Your task to perform on an android device: toggle data saver in the chrome app Image 0: 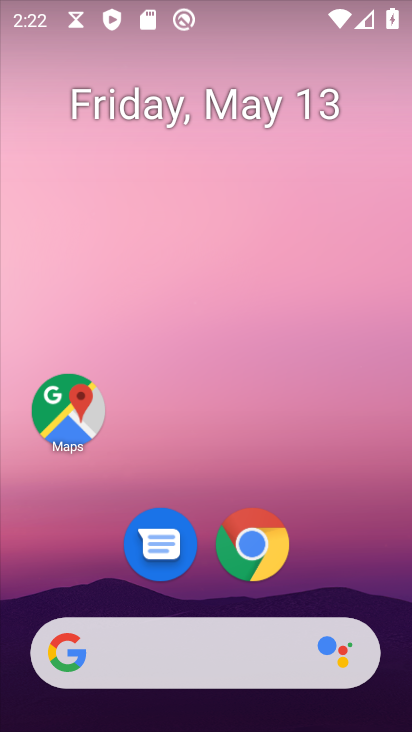
Step 0: click (272, 541)
Your task to perform on an android device: toggle data saver in the chrome app Image 1: 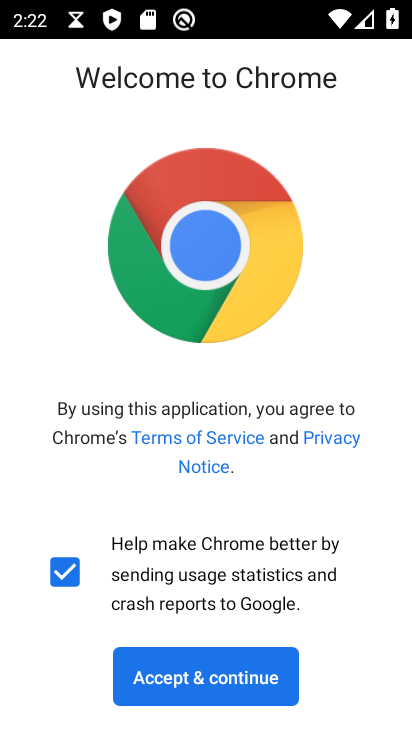
Step 1: click (216, 689)
Your task to perform on an android device: toggle data saver in the chrome app Image 2: 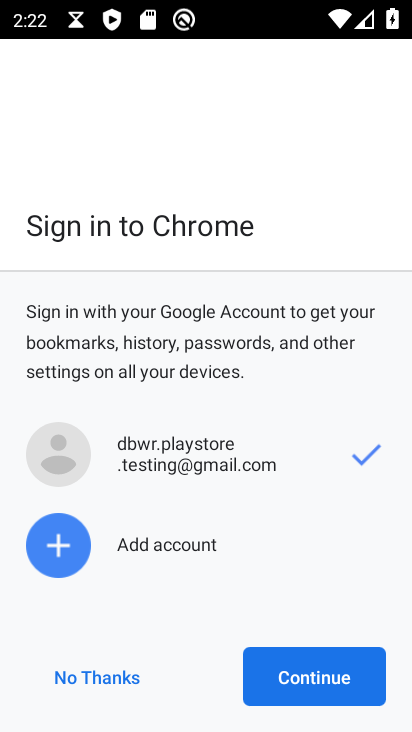
Step 2: click (342, 686)
Your task to perform on an android device: toggle data saver in the chrome app Image 3: 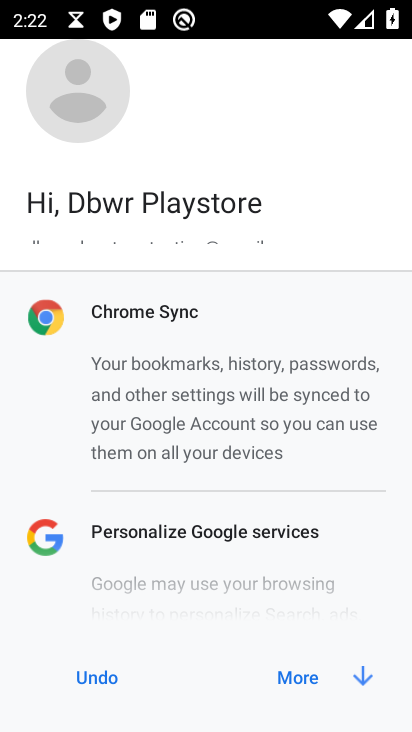
Step 3: click (299, 701)
Your task to perform on an android device: toggle data saver in the chrome app Image 4: 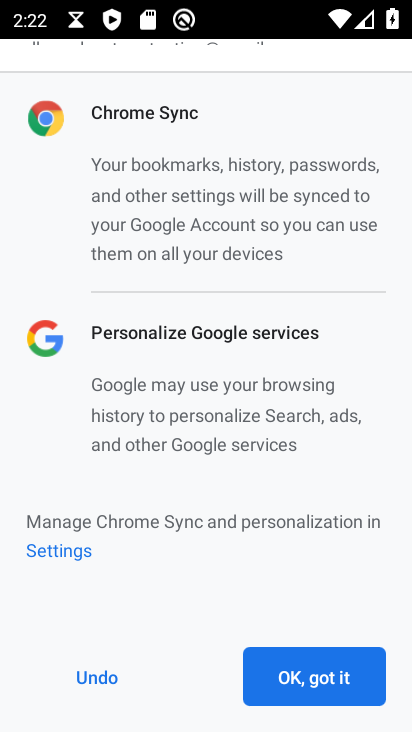
Step 4: click (314, 685)
Your task to perform on an android device: toggle data saver in the chrome app Image 5: 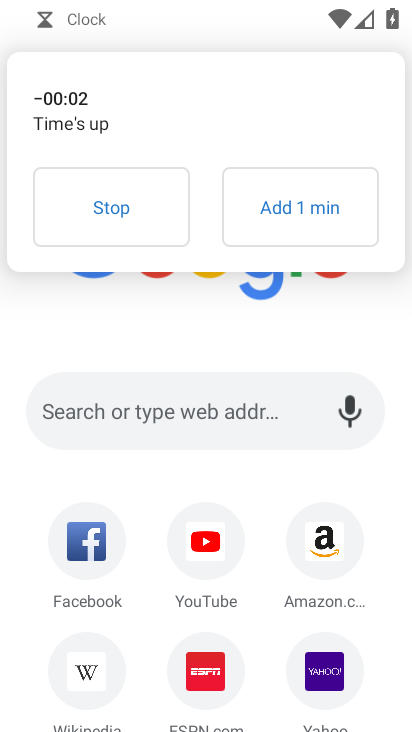
Step 5: click (153, 220)
Your task to perform on an android device: toggle data saver in the chrome app Image 6: 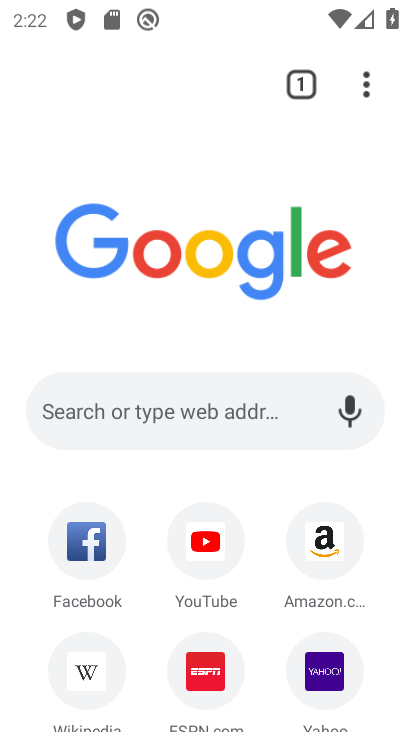
Step 6: drag from (390, 85) to (221, 611)
Your task to perform on an android device: toggle data saver in the chrome app Image 7: 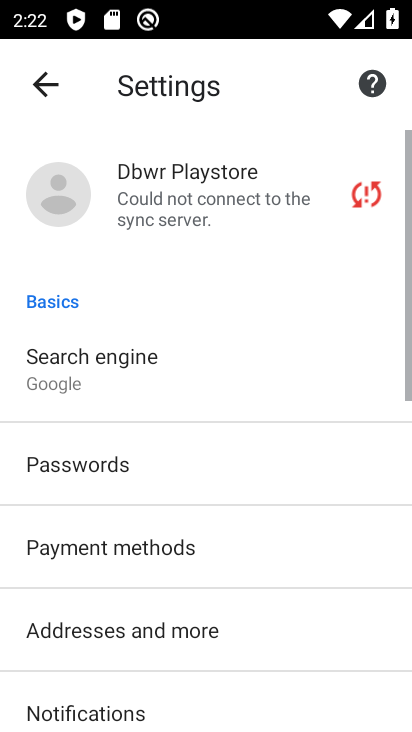
Step 7: drag from (248, 592) to (409, 233)
Your task to perform on an android device: toggle data saver in the chrome app Image 8: 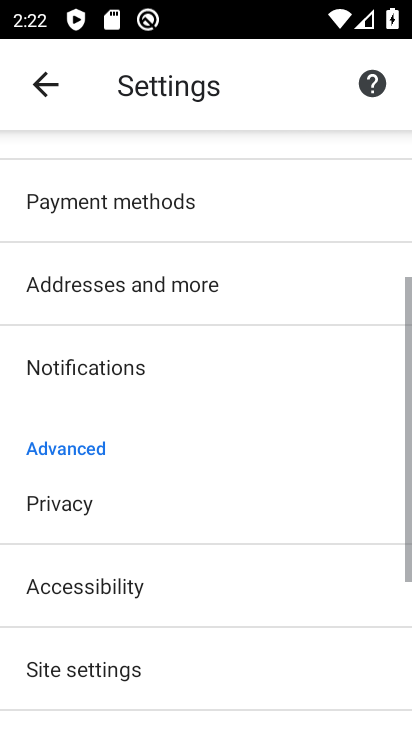
Step 8: drag from (200, 553) to (283, 263)
Your task to perform on an android device: toggle data saver in the chrome app Image 9: 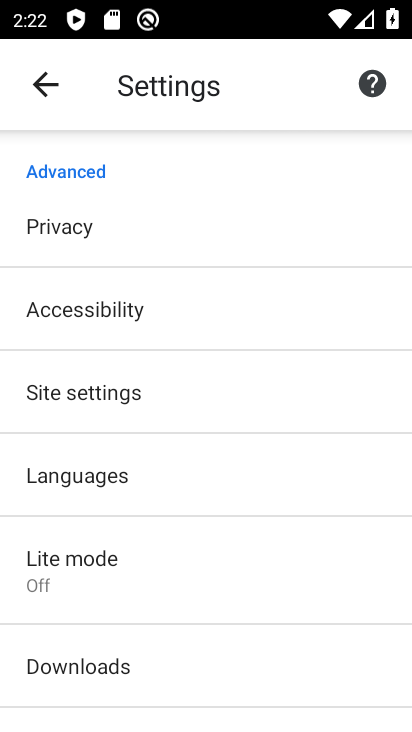
Step 9: click (165, 568)
Your task to perform on an android device: toggle data saver in the chrome app Image 10: 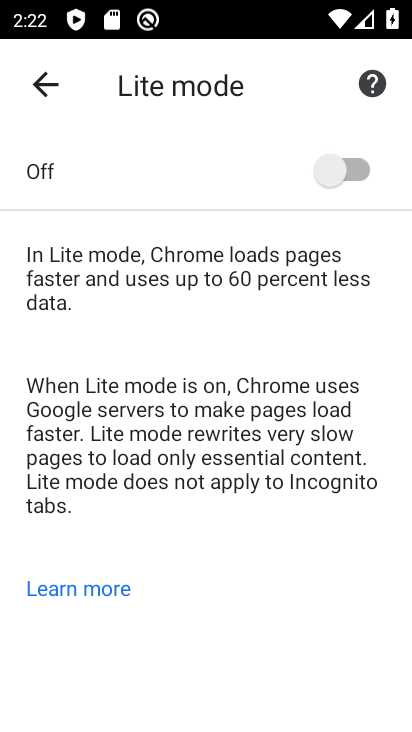
Step 10: click (368, 164)
Your task to perform on an android device: toggle data saver in the chrome app Image 11: 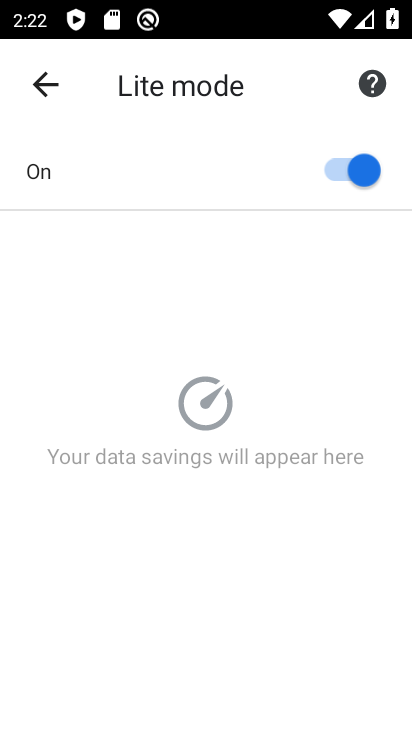
Step 11: task complete